Your task to perform on an android device: change timer sound Image 0: 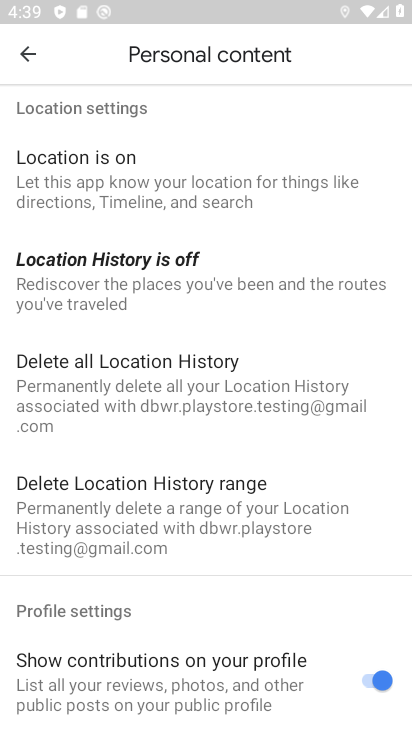
Step 0: press home button
Your task to perform on an android device: change timer sound Image 1: 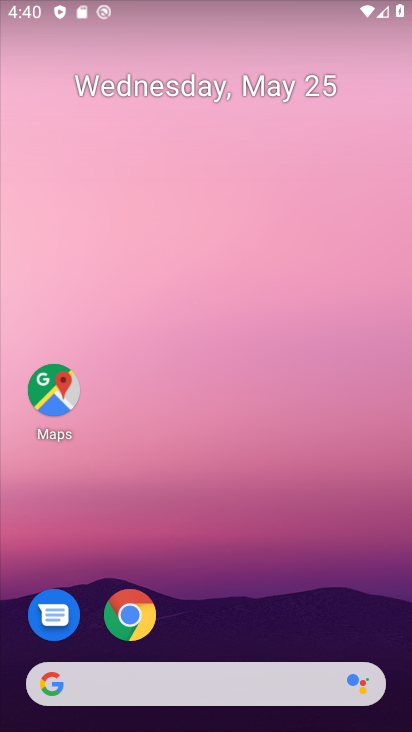
Step 1: drag from (346, 622) to (311, 135)
Your task to perform on an android device: change timer sound Image 2: 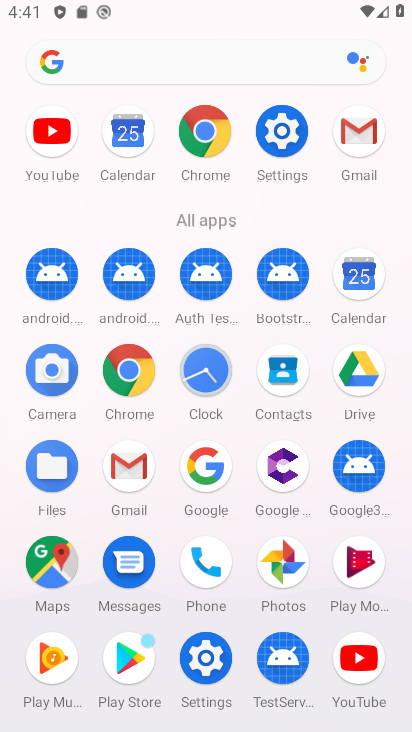
Step 2: click (211, 375)
Your task to perform on an android device: change timer sound Image 3: 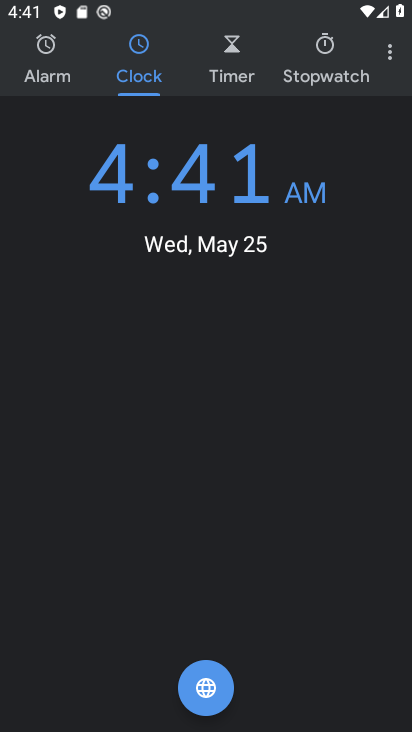
Step 3: click (232, 74)
Your task to perform on an android device: change timer sound Image 4: 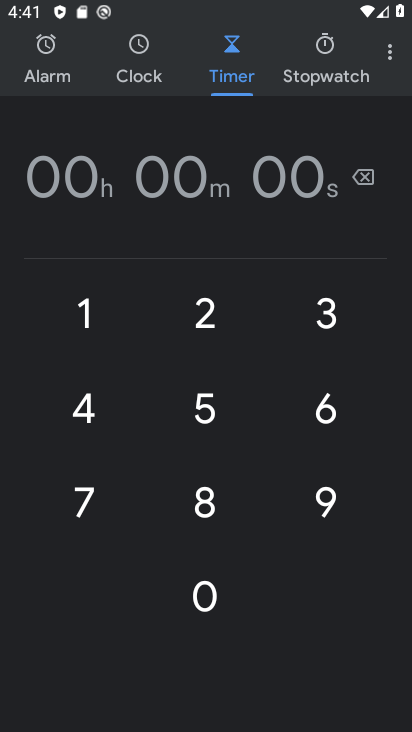
Step 4: click (394, 49)
Your task to perform on an android device: change timer sound Image 5: 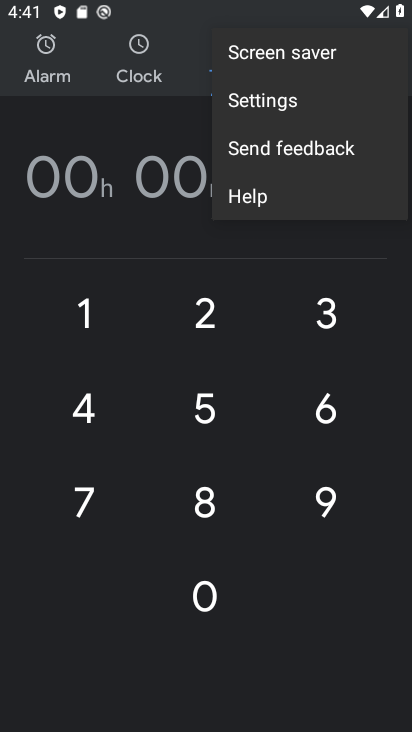
Step 5: click (269, 88)
Your task to perform on an android device: change timer sound Image 6: 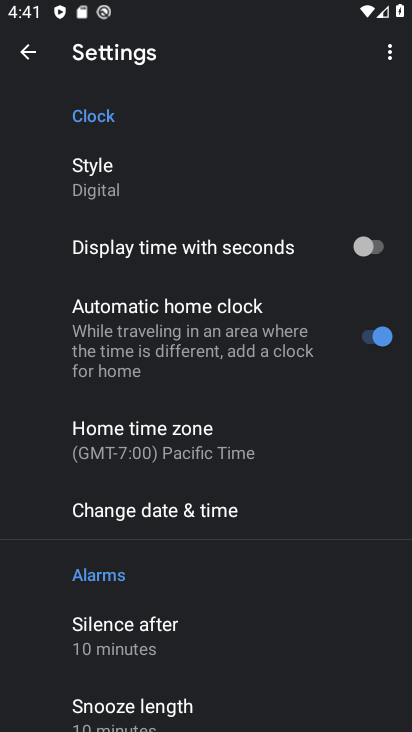
Step 6: drag from (186, 644) to (308, 135)
Your task to perform on an android device: change timer sound Image 7: 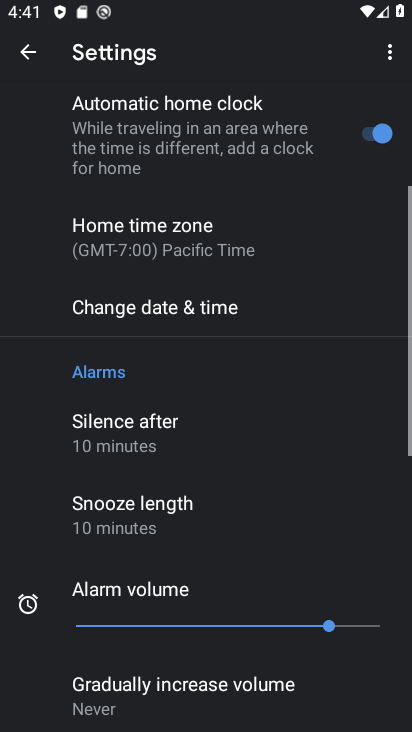
Step 7: drag from (323, 563) to (308, 132)
Your task to perform on an android device: change timer sound Image 8: 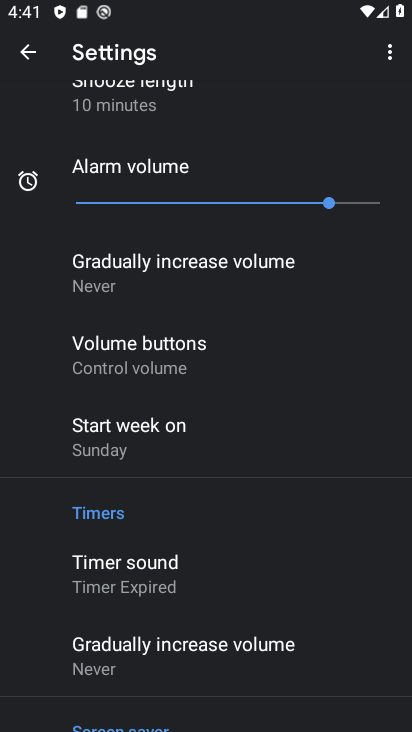
Step 8: click (215, 546)
Your task to perform on an android device: change timer sound Image 9: 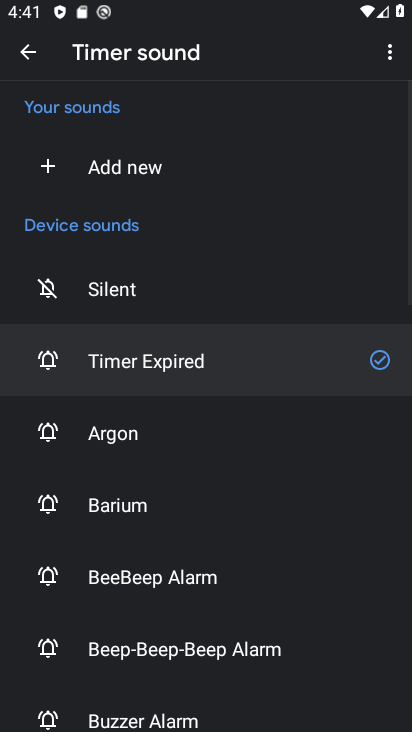
Step 9: click (205, 499)
Your task to perform on an android device: change timer sound Image 10: 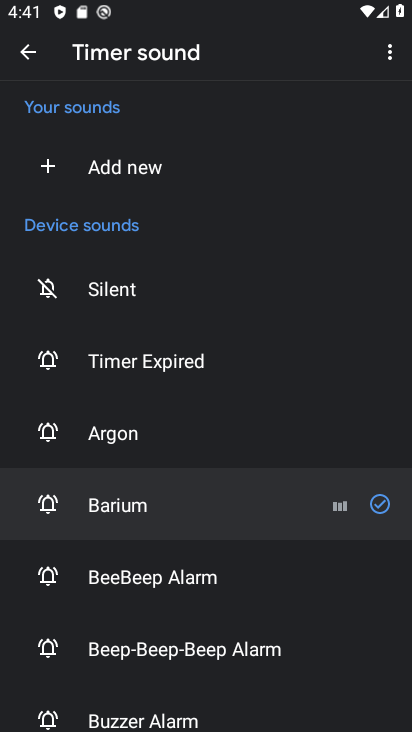
Step 10: task complete